Your task to perform on an android device: refresh tabs in the chrome app Image 0: 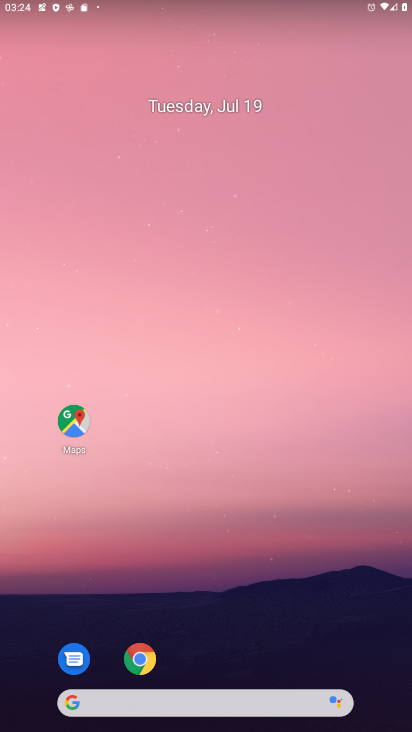
Step 0: press home button
Your task to perform on an android device: refresh tabs in the chrome app Image 1: 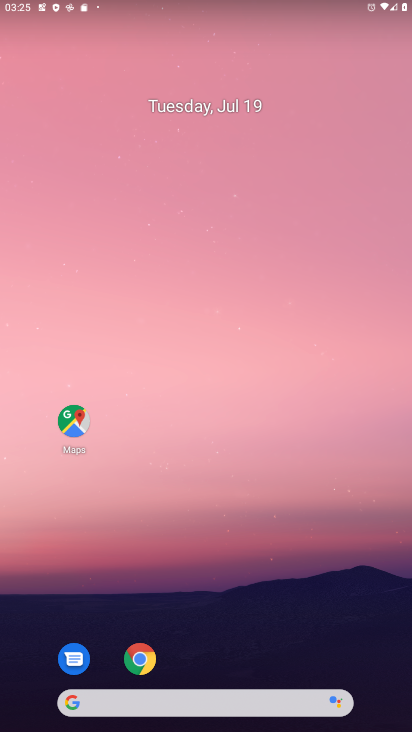
Step 1: drag from (197, 654) to (195, 34)
Your task to perform on an android device: refresh tabs in the chrome app Image 2: 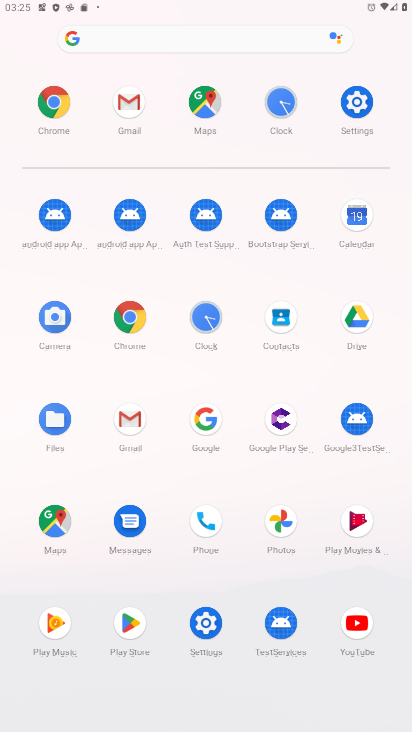
Step 2: click (57, 130)
Your task to perform on an android device: refresh tabs in the chrome app Image 3: 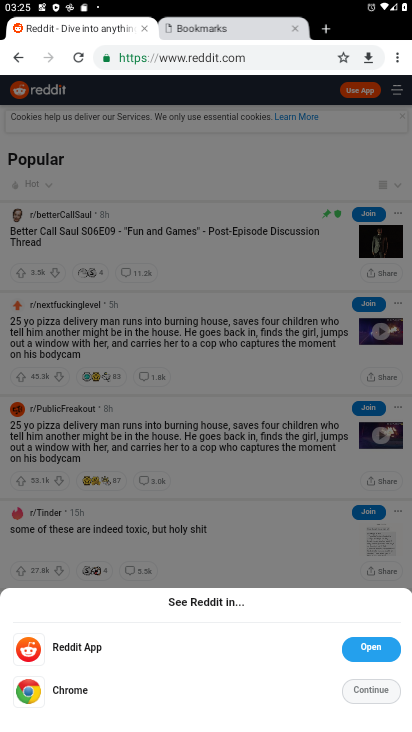
Step 3: click (82, 57)
Your task to perform on an android device: refresh tabs in the chrome app Image 4: 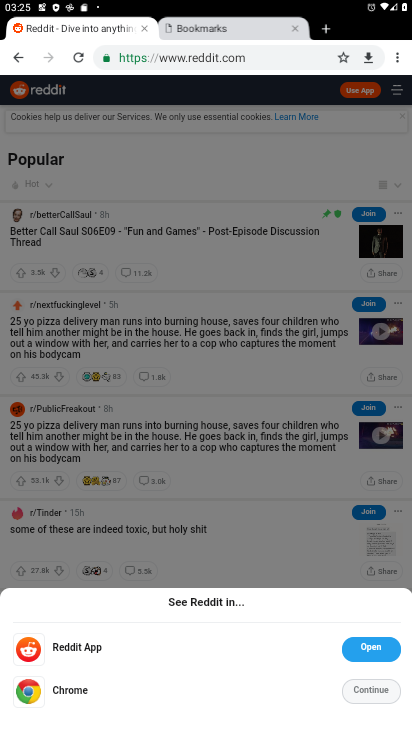
Step 4: task complete